Your task to perform on an android device: refresh tabs in the chrome app Image 0: 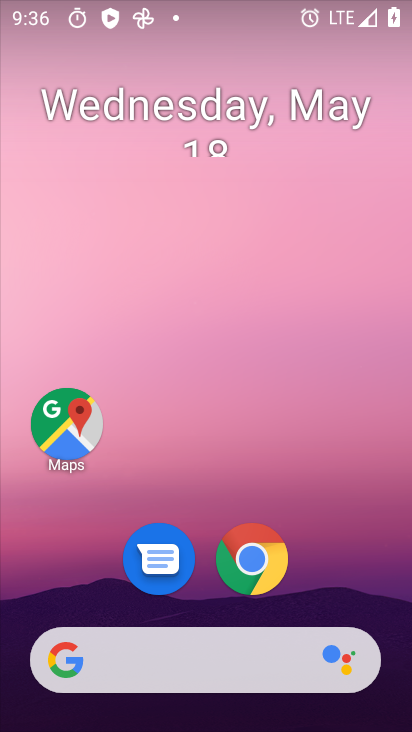
Step 0: drag from (365, 578) to (317, 96)
Your task to perform on an android device: refresh tabs in the chrome app Image 1: 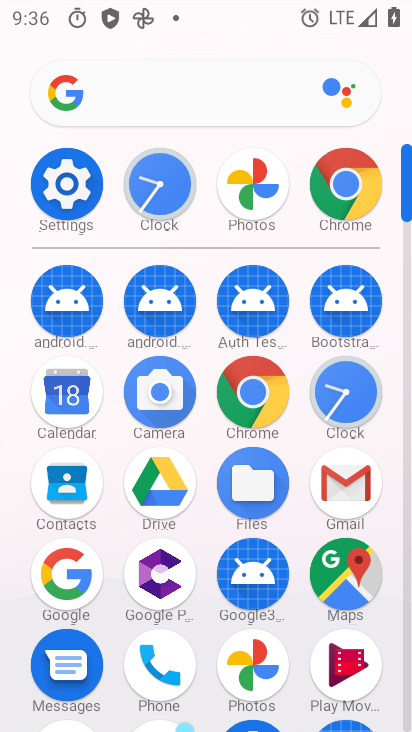
Step 1: drag from (1, 520) to (27, 223)
Your task to perform on an android device: refresh tabs in the chrome app Image 2: 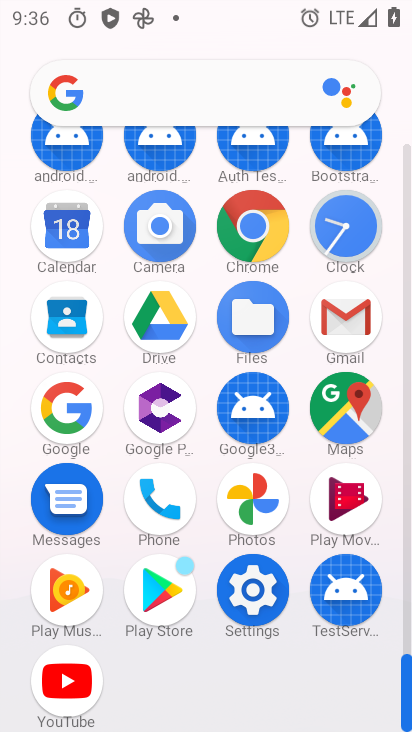
Step 2: click (260, 220)
Your task to perform on an android device: refresh tabs in the chrome app Image 3: 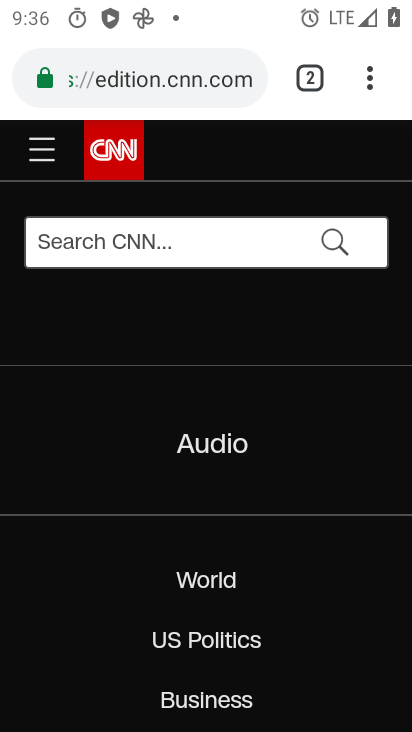
Step 3: click (368, 76)
Your task to perform on an android device: refresh tabs in the chrome app Image 4: 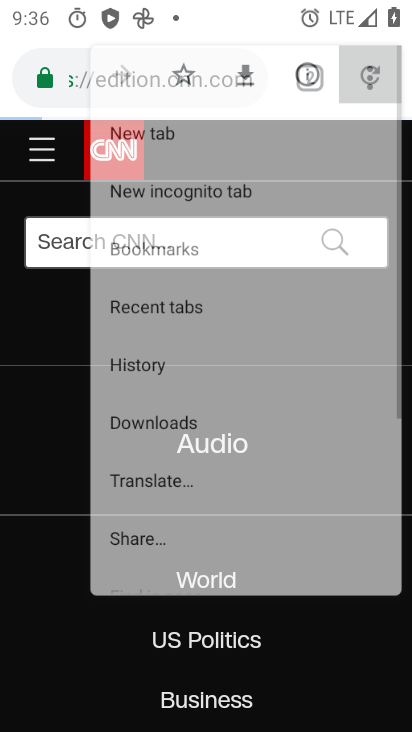
Step 4: click (368, 76)
Your task to perform on an android device: refresh tabs in the chrome app Image 5: 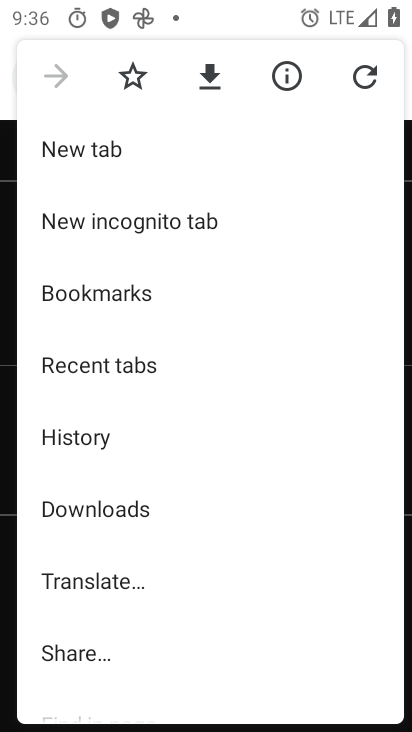
Step 5: click (6, 54)
Your task to perform on an android device: refresh tabs in the chrome app Image 6: 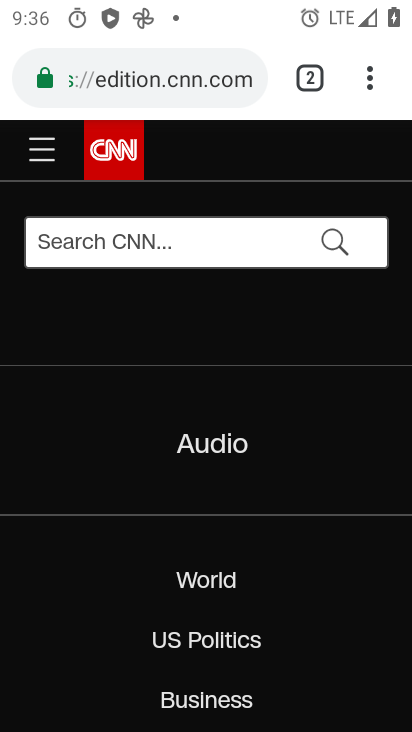
Step 6: task complete